Your task to perform on an android device: change the clock display to digital Image 0: 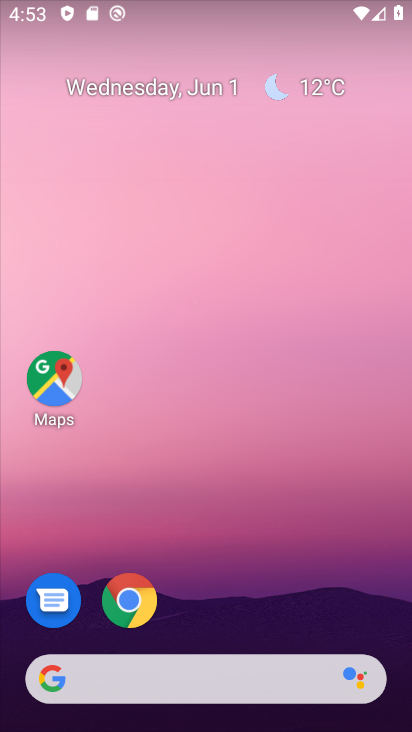
Step 0: drag from (230, 599) to (171, 173)
Your task to perform on an android device: change the clock display to digital Image 1: 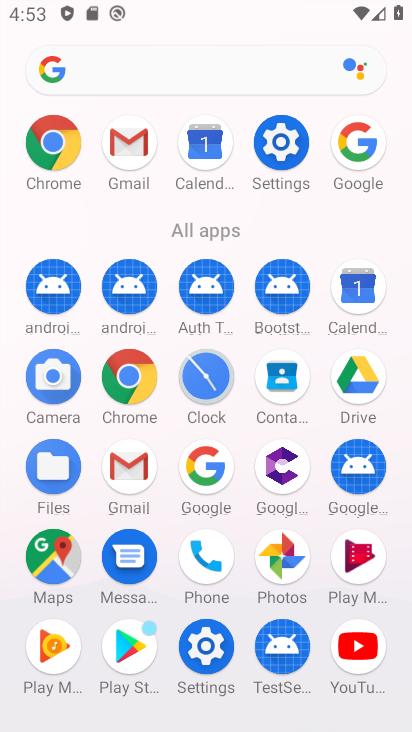
Step 1: click (209, 379)
Your task to perform on an android device: change the clock display to digital Image 2: 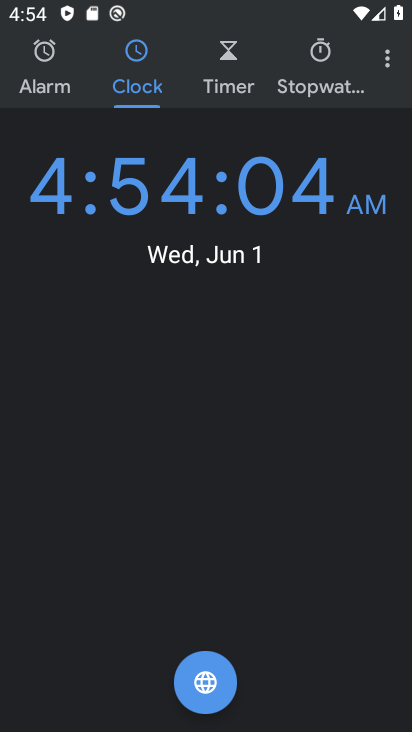
Step 2: click (390, 61)
Your task to perform on an android device: change the clock display to digital Image 3: 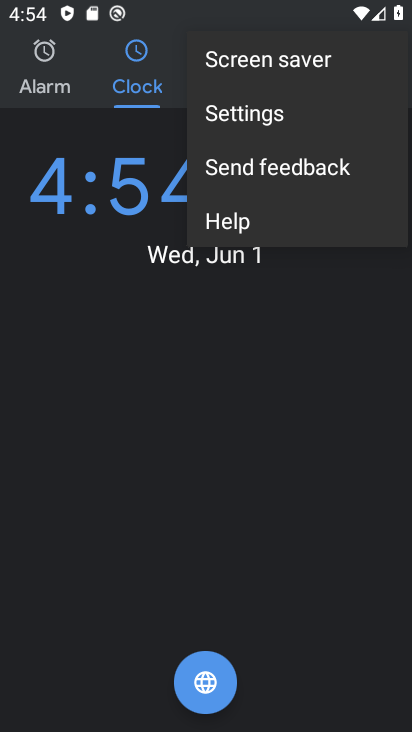
Step 3: click (266, 115)
Your task to perform on an android device: change the clock display to digital Image 4: 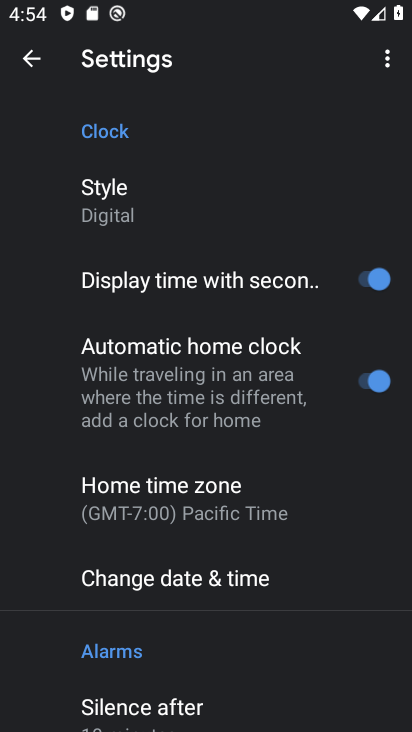
Step 4: click (150, 206)
Your task to perform on an android device: change the clock display to digital Image 5: 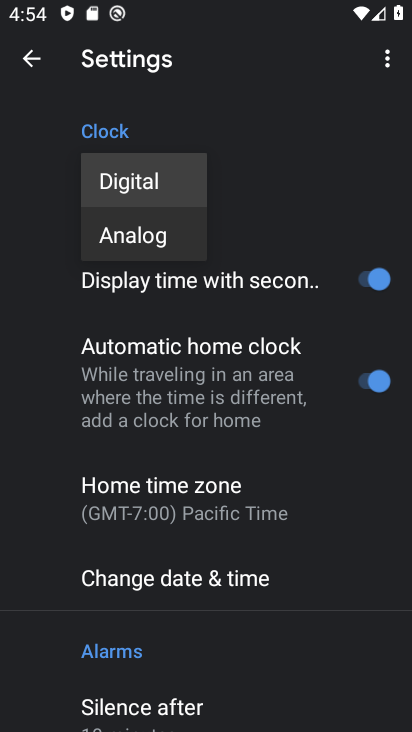
Step 5: click (150, 206)
Your task to perform on an android device: change the clock display to digital Image 6: 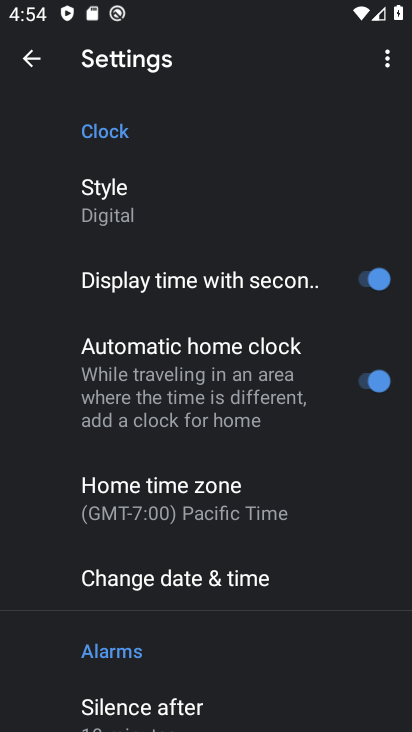
Step 6: task complete